Your task to perform on an android device: What's on the menu at Pizza Hut? Image 0: 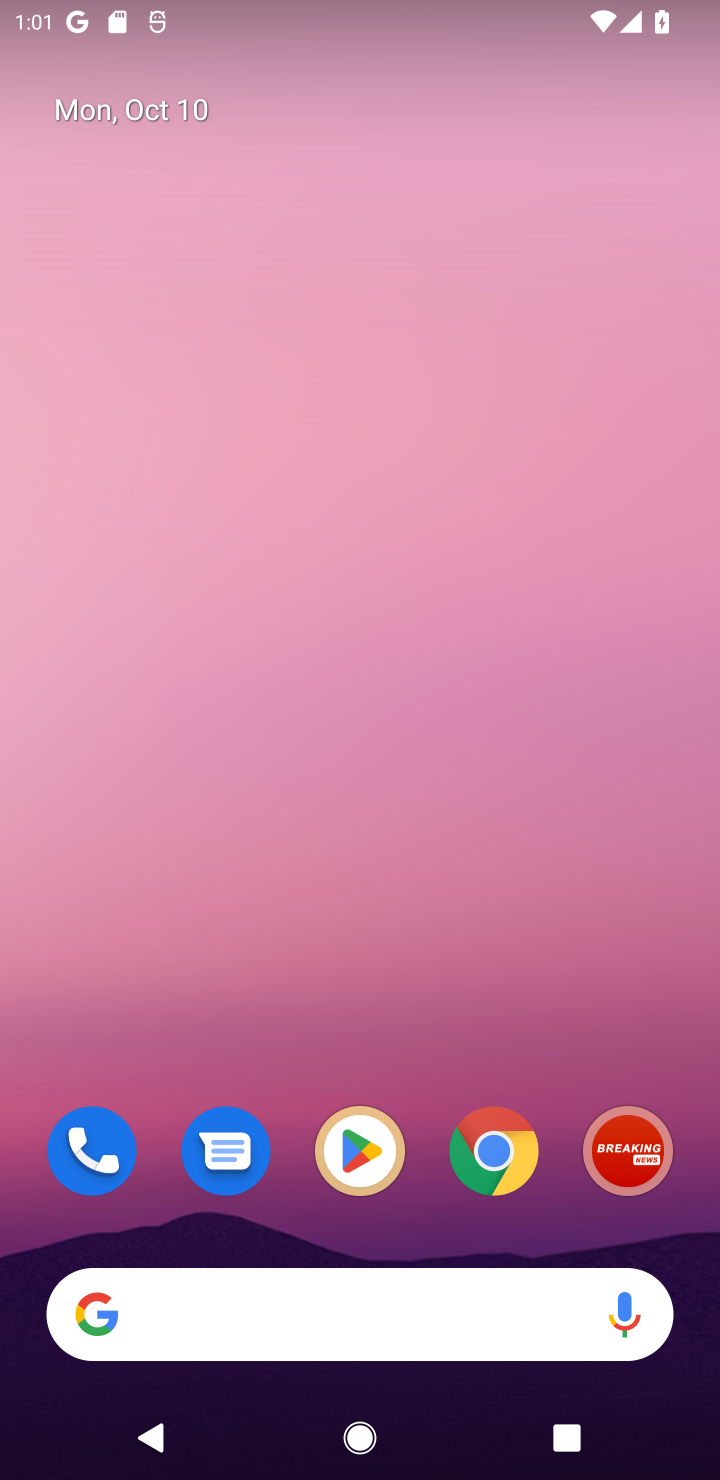
Step 0: click (291, 1282)
Your task to perform on an android device: What's on the menu at Pizza Hut? Image 1: 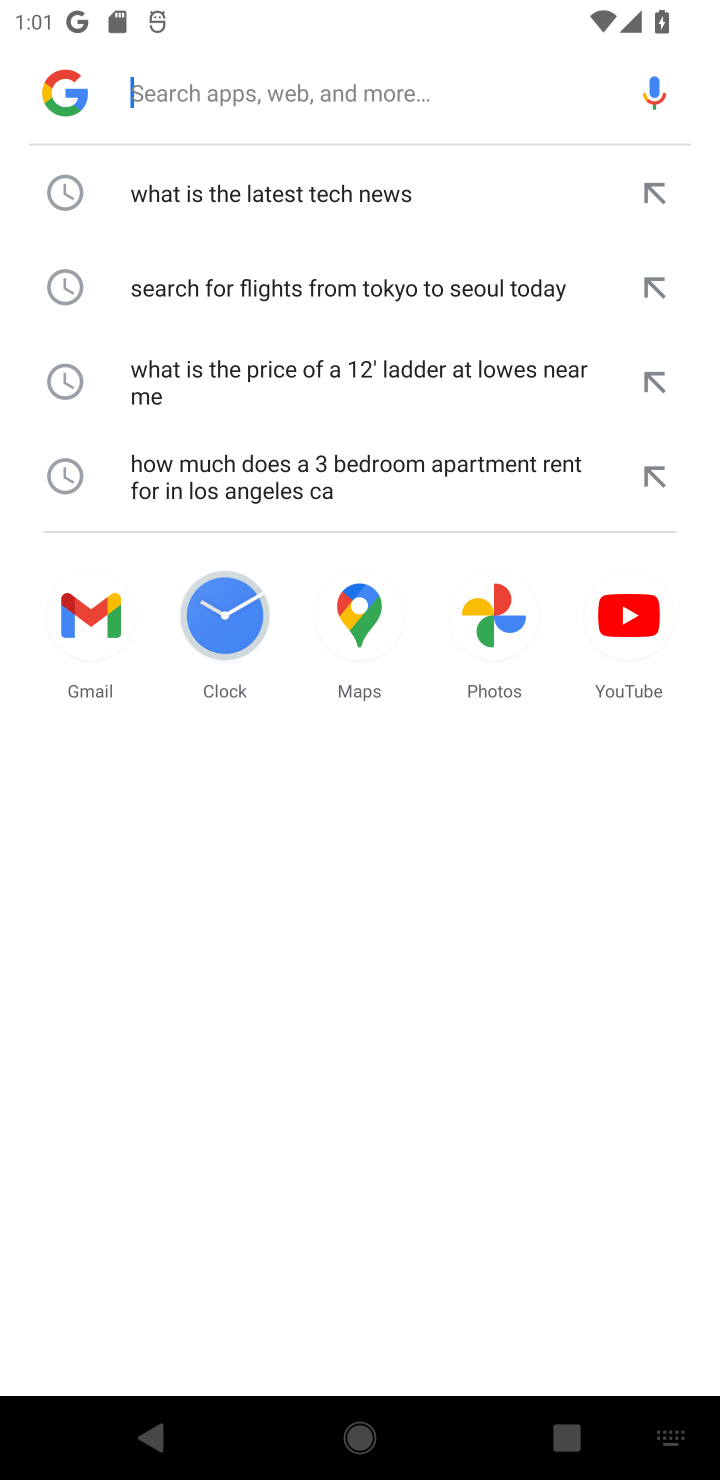
Step 1: type "What's on the menu at Pizza Hut?"
Your task to perform on an android device: What's on the menu at Pizza Hut? Image 2: 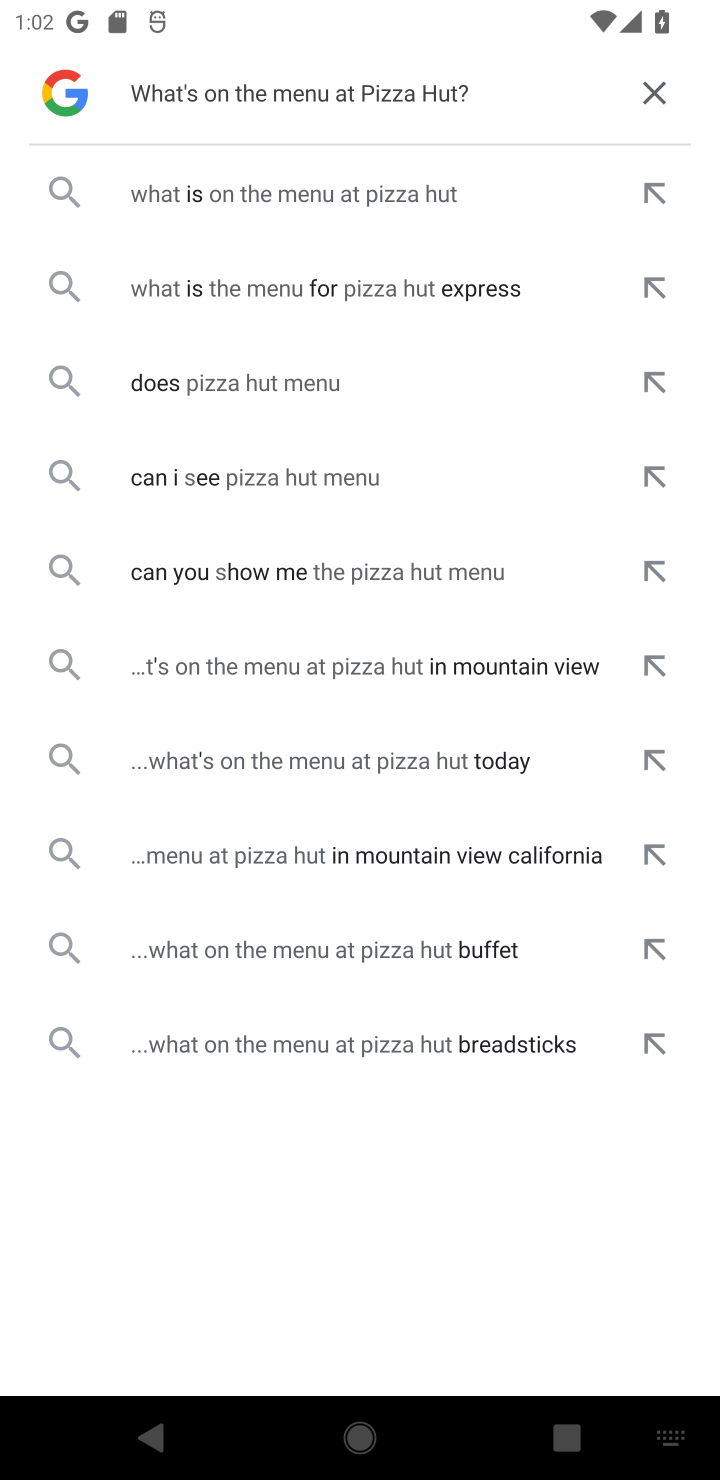
Step 2: click (273, 193)
Your task to perform on an android device: What's on the menu at Pizza Hut? Image 3: 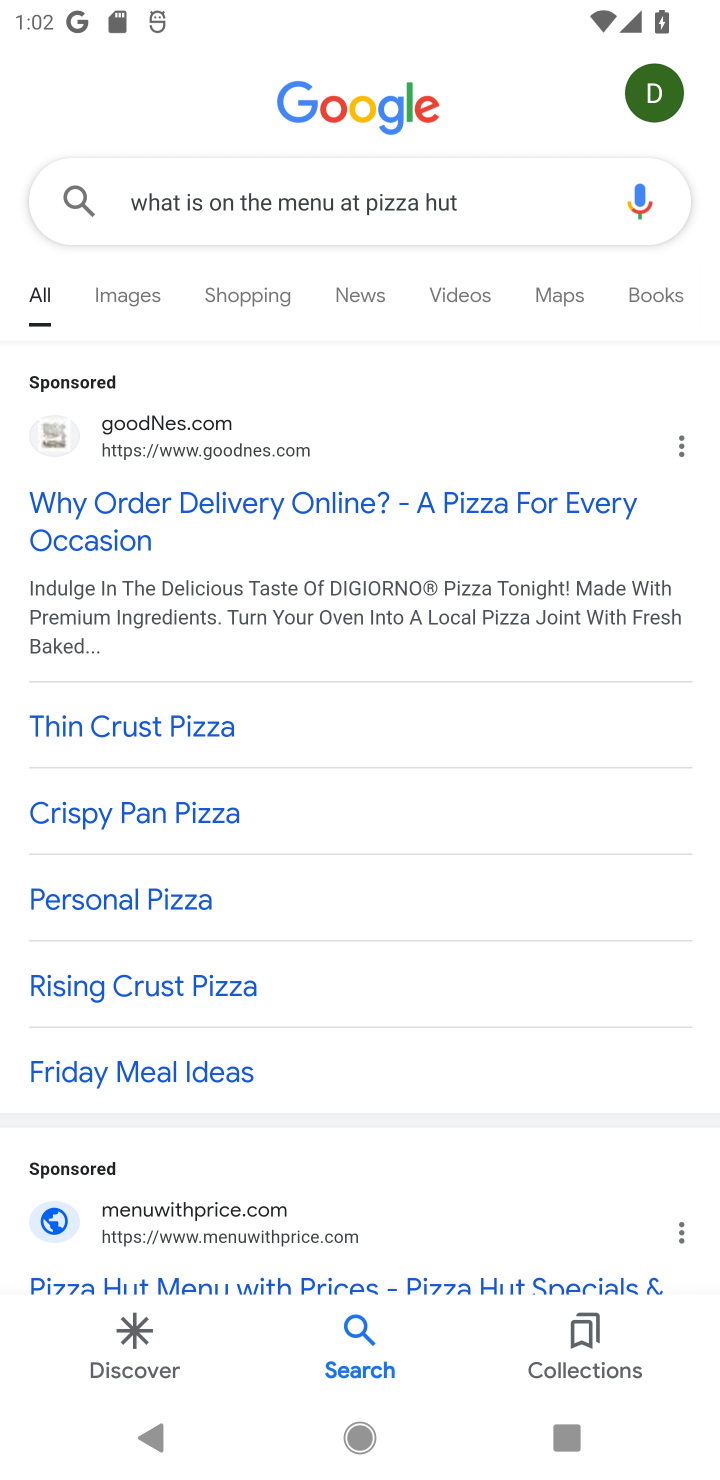
Step 3: click (274, 495)
Your task to perform on an android device: What's on the menu at Pizza Hut? Image 4: 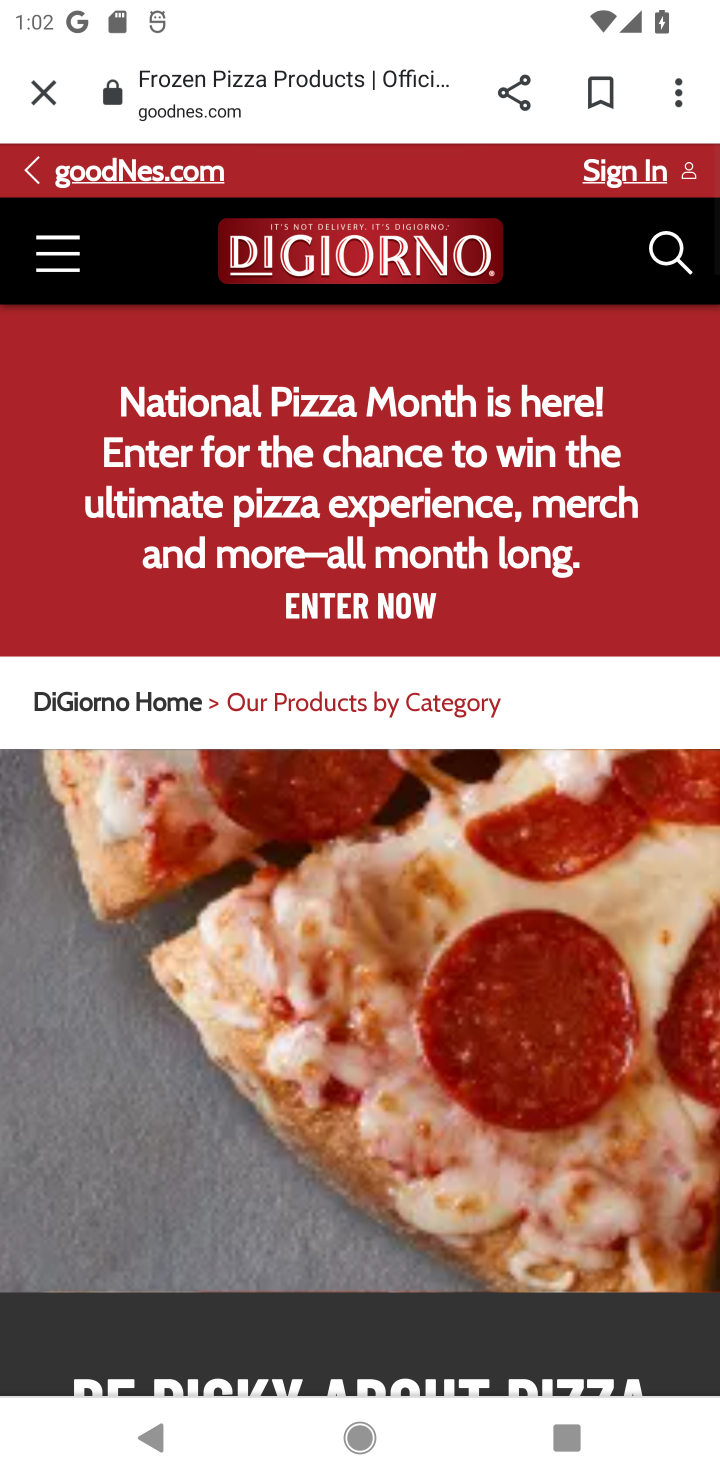
Step 4: drag from (507, 1157) to (462, 677)
Your task to perform on an android device: What's on the menu at Pizza Hut? Image 5: 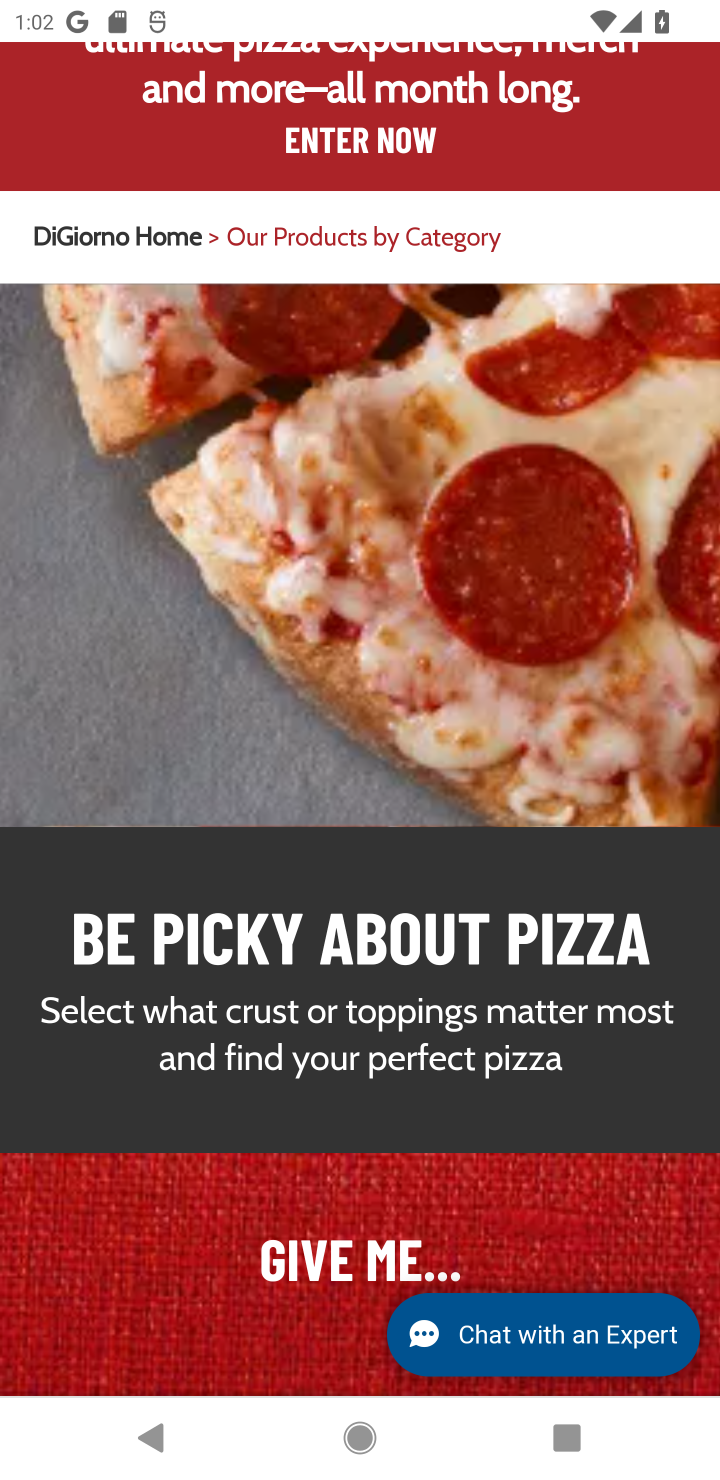
Step 5: drag from (565, 833) to (543, 546)
Your task to perform on an android device: What's on the menu at Pizza Hut? Image 6: 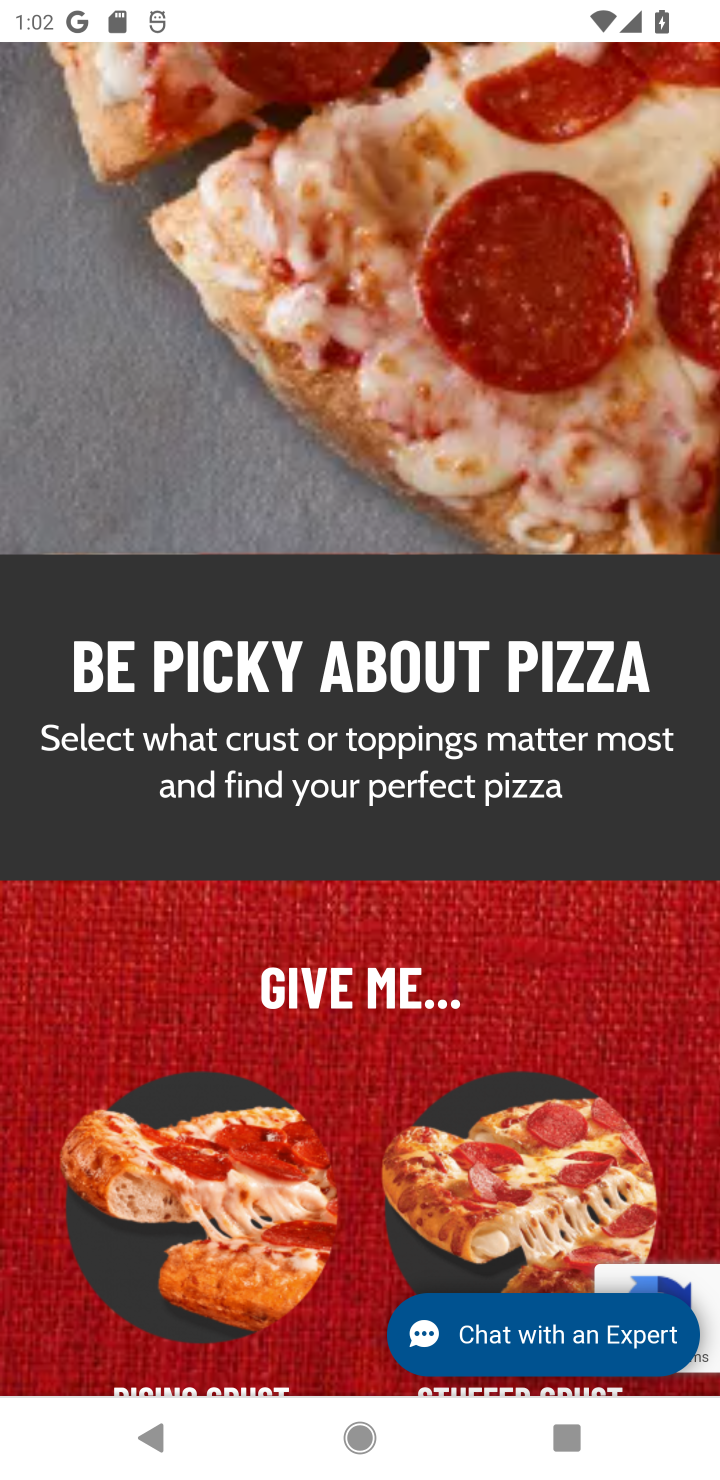
Step 6: click (462, 334)
Your task to perform on an android device: What's on the menu at Pizza Hut? Image 7: 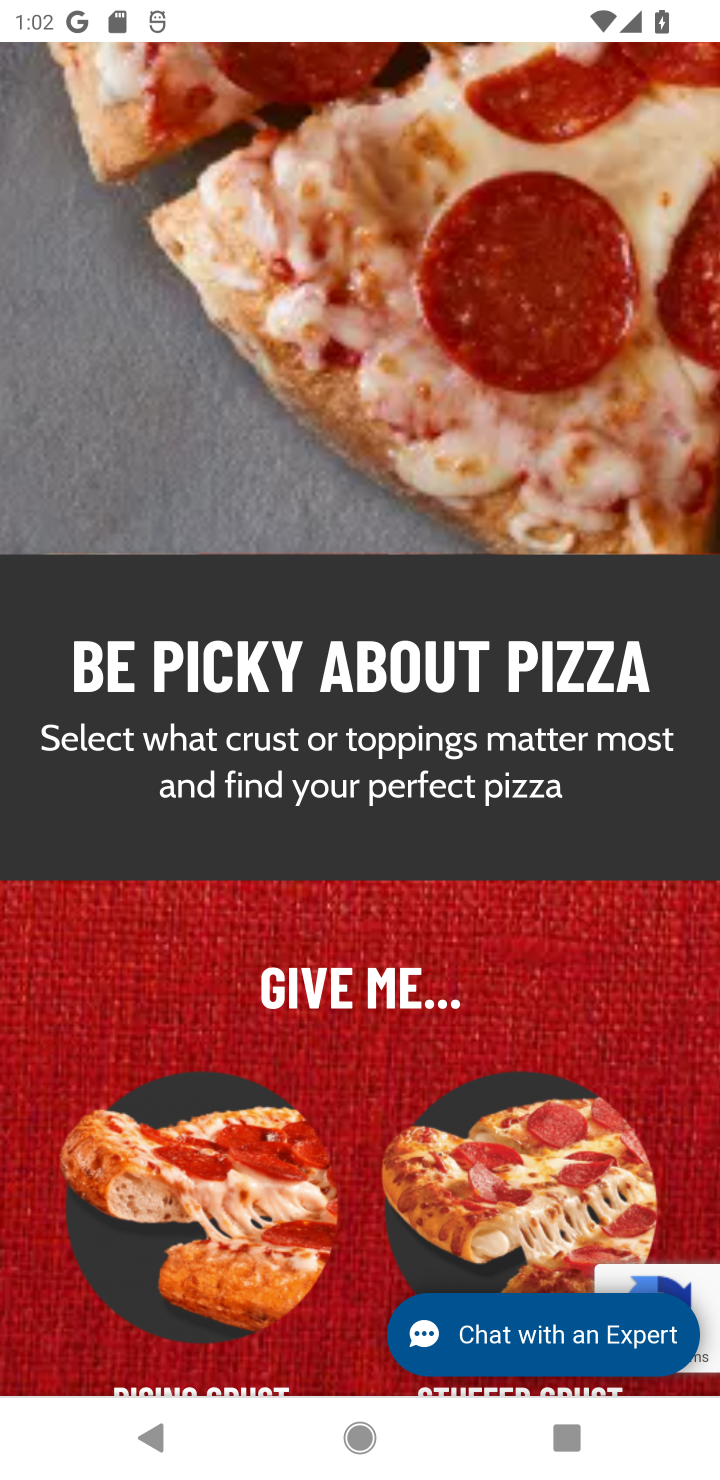
Step 7: drag from (520, 1153) to (486, 279)
Your task to perform on an android device: What's on the menu at Pizza Hut? Image 8: 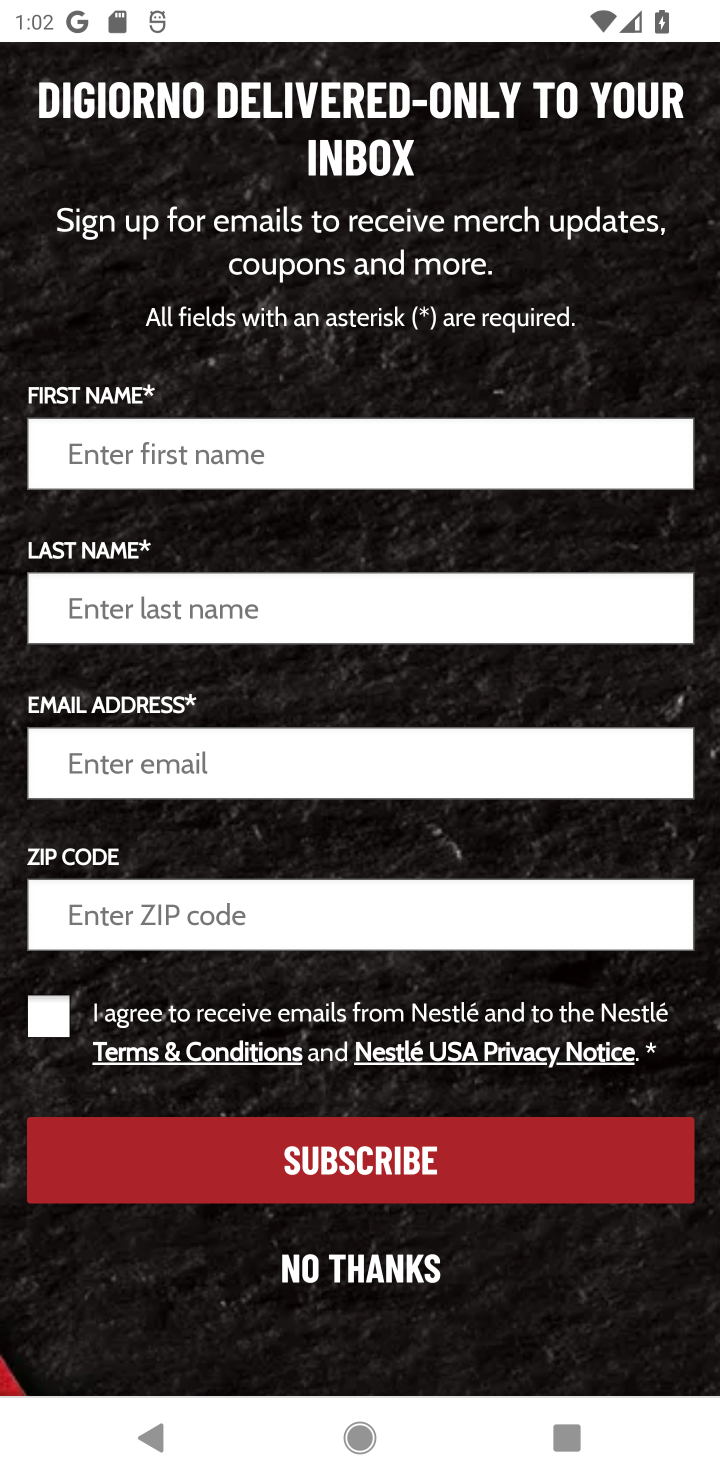
Step 8: click (363, 1272)
Your task to perform on an android device: What's on the menu at Pizza Hut? Image 9: 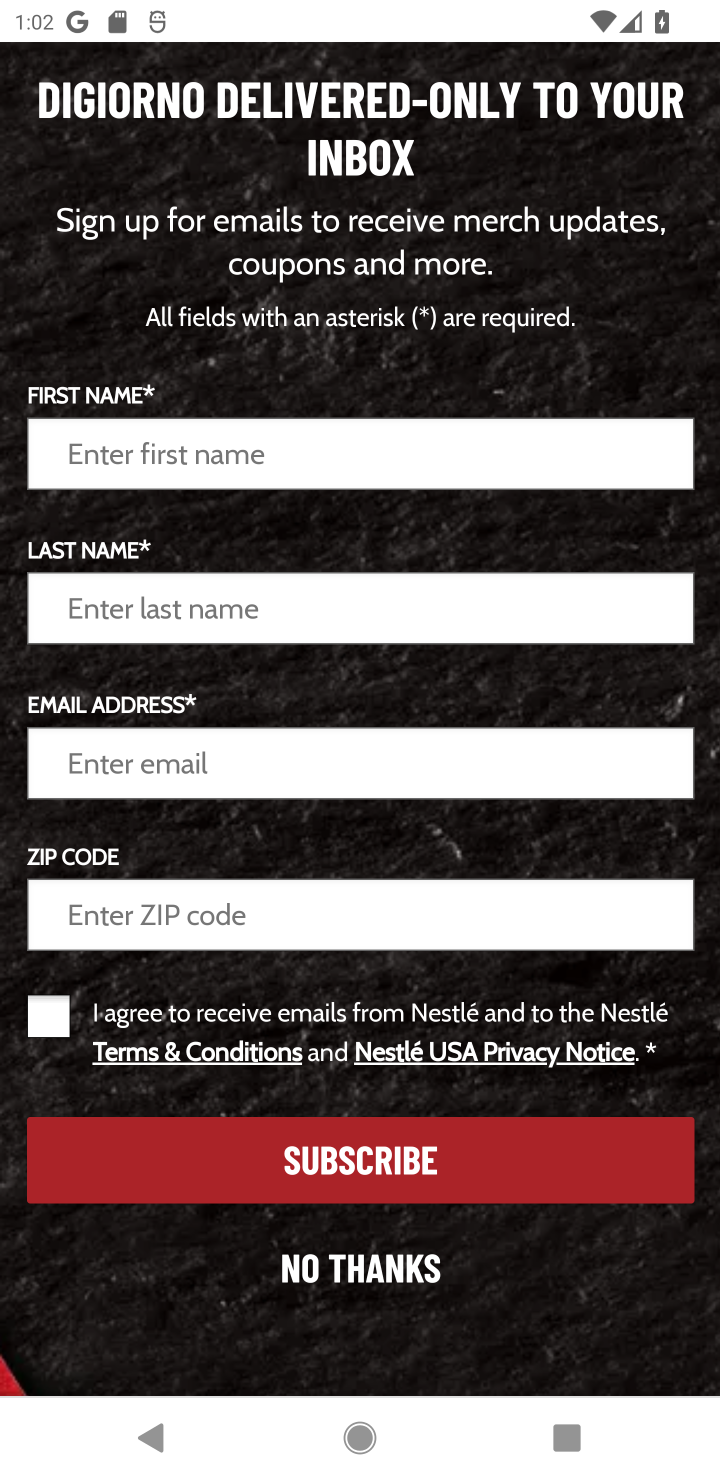
Step 9: click (369, 1271)
Your task to perform on an android device: What's on the menu at Pizza Hut? Image 10: 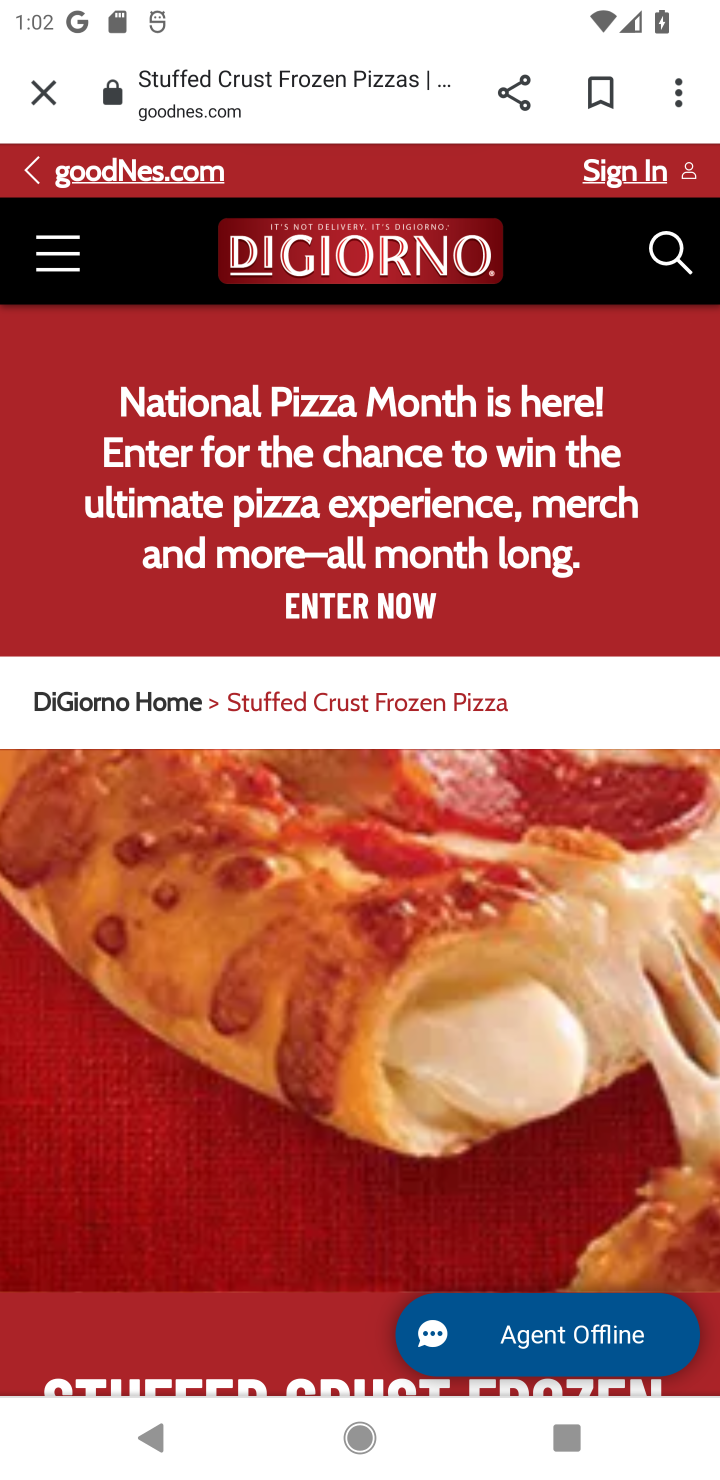
Step 10: task complete